Your task to perform on an android device: empty trash in the gmail app Image 0: 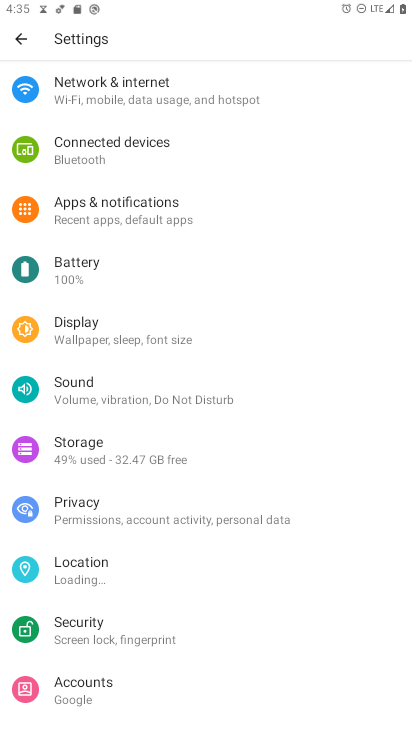
Step 0: press home button
Your task to perform on an android device: empty trash in the gmail app Image 1: 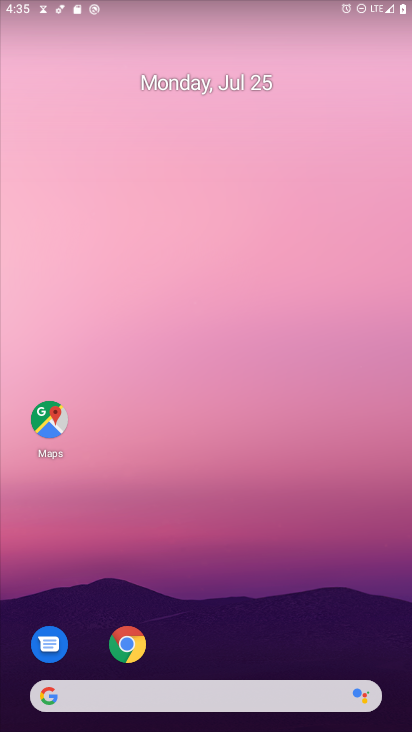
Step 1: drag from (253, 623) to (236, 43)
Your task to perform on an android device: empty trash in the gmail app Image 2: 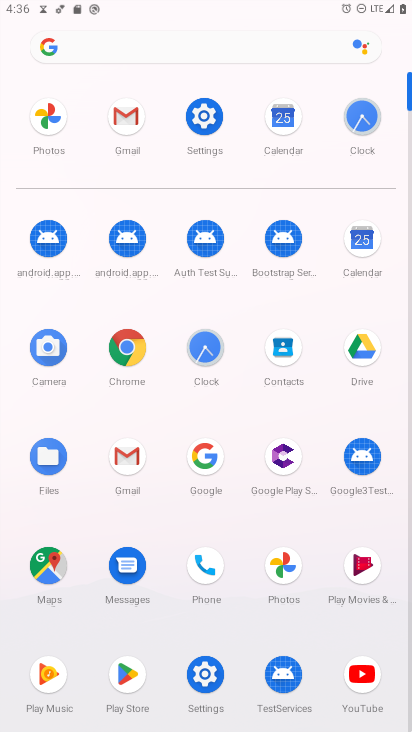
Step 2: click (125, 112)
Your task to perform on an android device: empty trash in the gmail app Image 3: 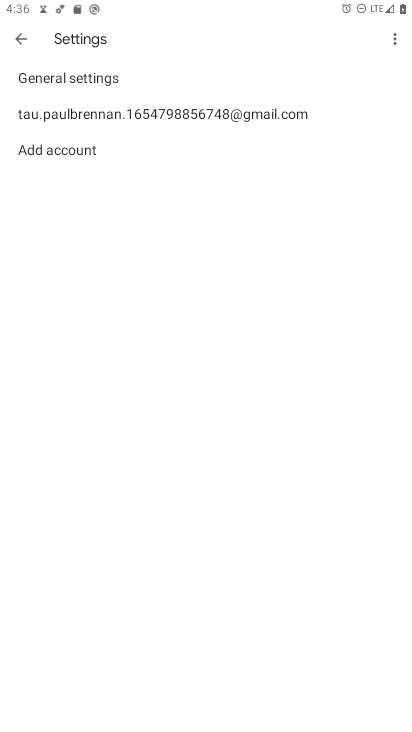
Step 3: click (95, 109)
Your task to perform on an android device: empty trash in the gmail app Image 4: 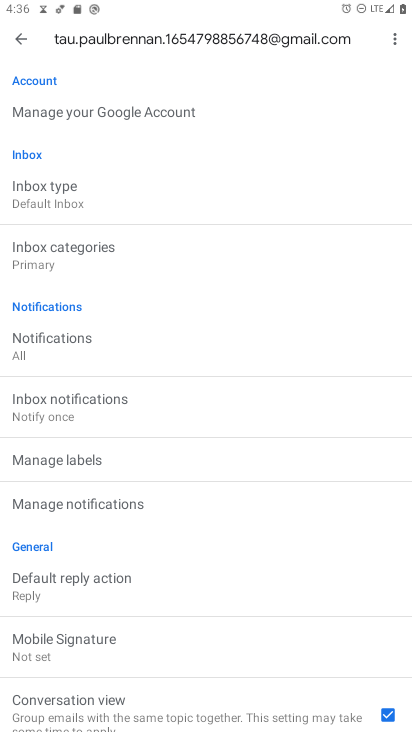
Step 4: click (18, 40)
Your task to perform on an android device: empty trash in the gmail app Image 5: 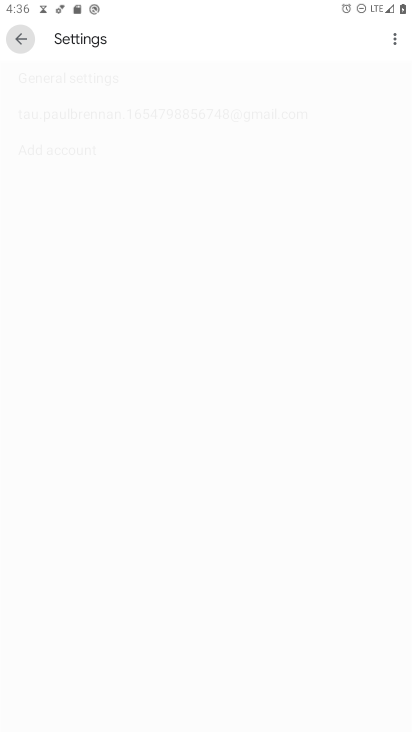
Step 5: click (18, 40)
Your task to perform on an android device: empty trash in the gmail app Image 6: 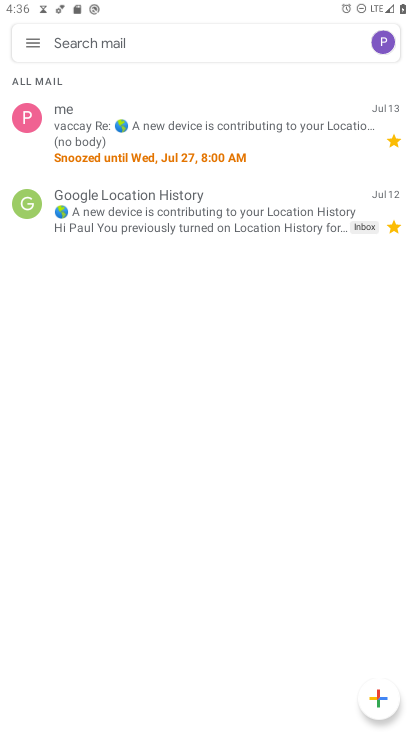
Step 6: click (18, 40)
Your task to perform on an android device: empty trash in the gmail app Image 7: 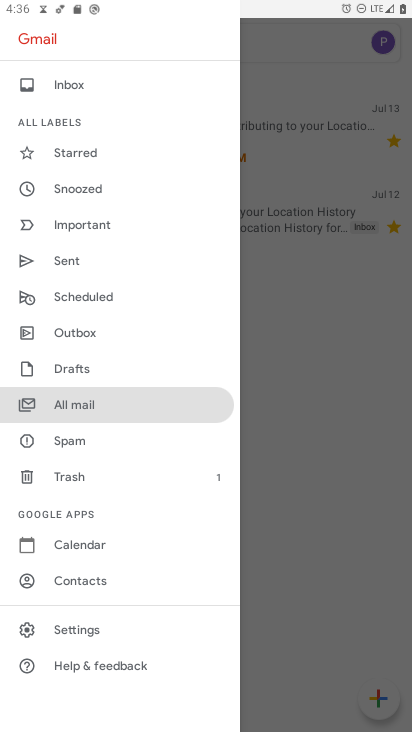
Step 7: click (81, 465)
Your task to perform on an android device: empty trash in the gmail app Image 8: 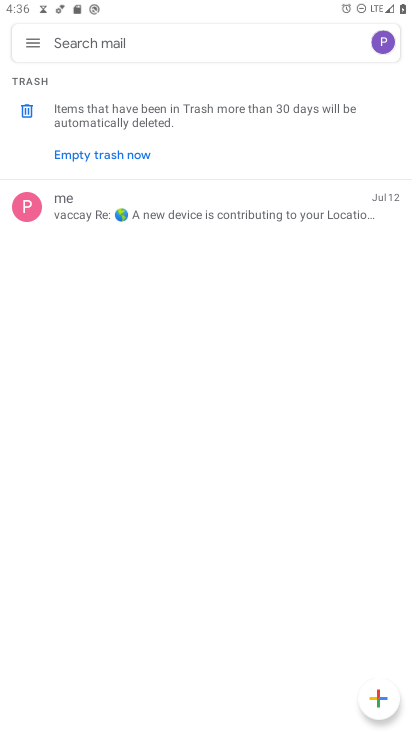
Step 8: click (102, 157)
Your task to perform on an android device: empty trash in the gmail app Image 9: 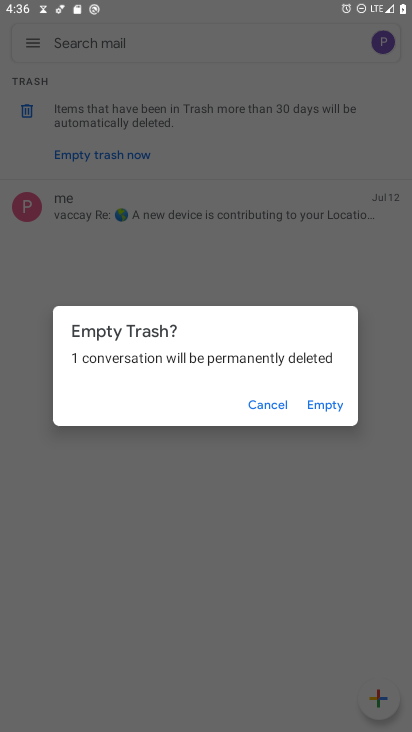
Step 9: click (339, 401)
Your task to perform on an android device: empty trash in the gmail app Image 10: 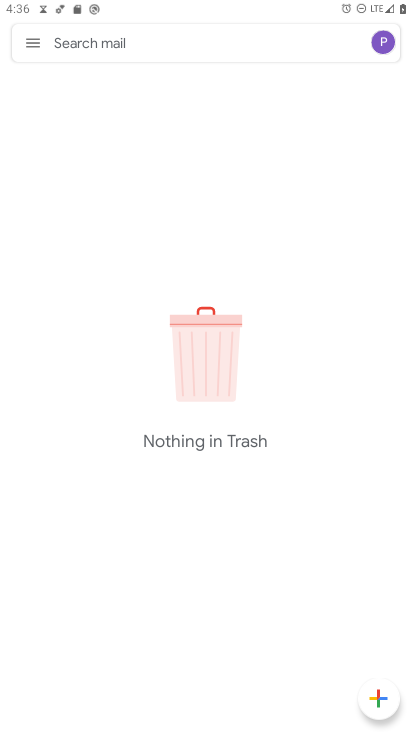
Step 10: task complete